Your task to perform on an android device: When is my next meeting? Image 0: 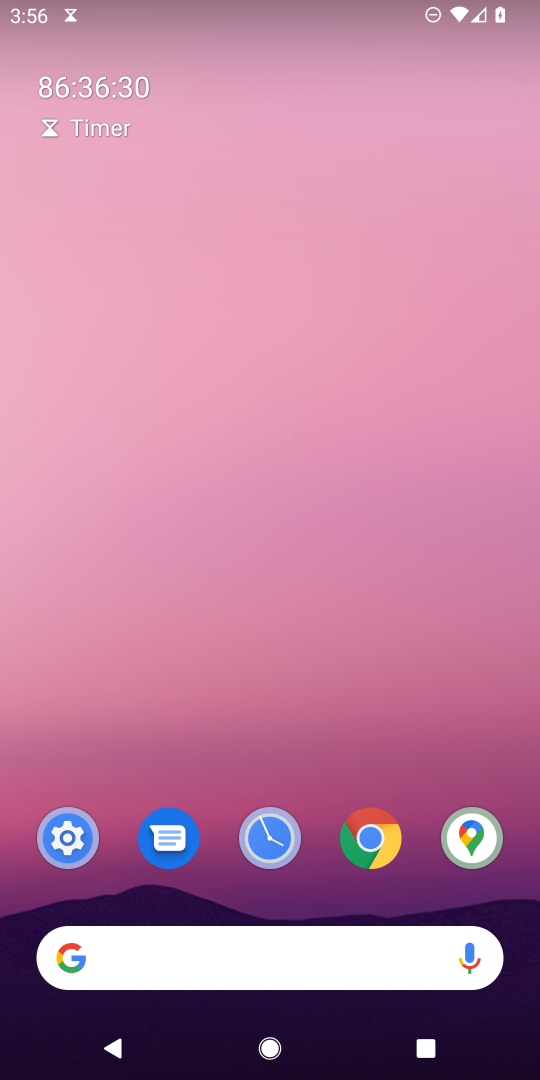
Step 0: drag from (227, 906) to (83, 238)
Your task to perform on an android device: When is my next meeting? Image 1: 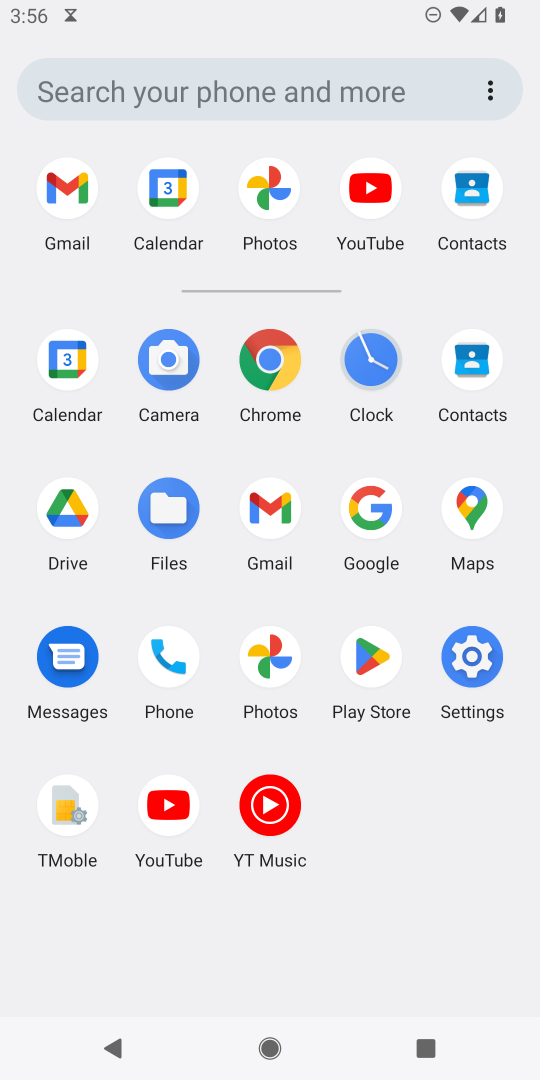
Step 1: click (63, 352)
Your task to perform on an android device: When is my next meeting? Image 2: 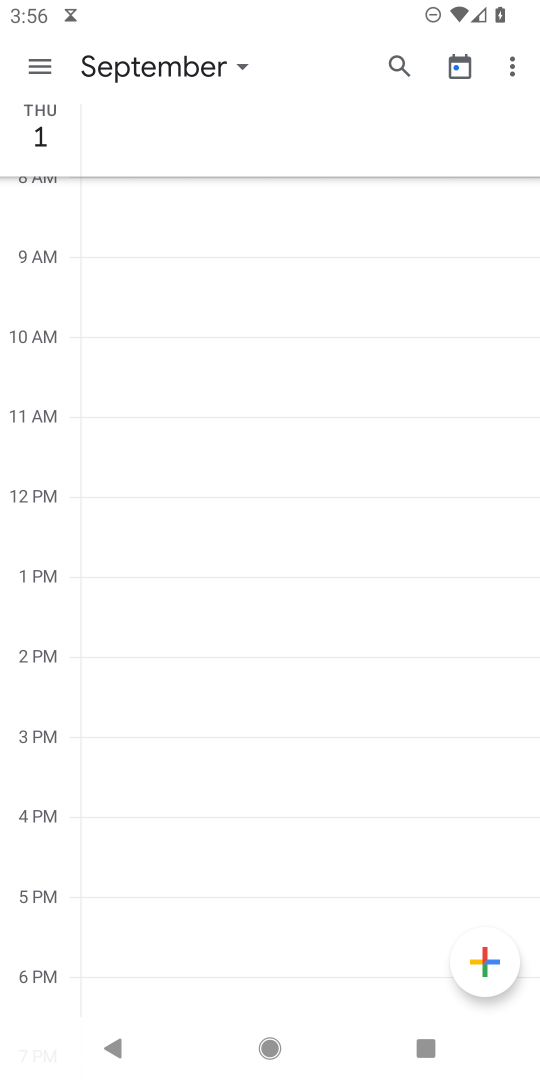
Step 2: click (29, 66)
Your task to perform on an android device: When is my next meeting? Image 3: 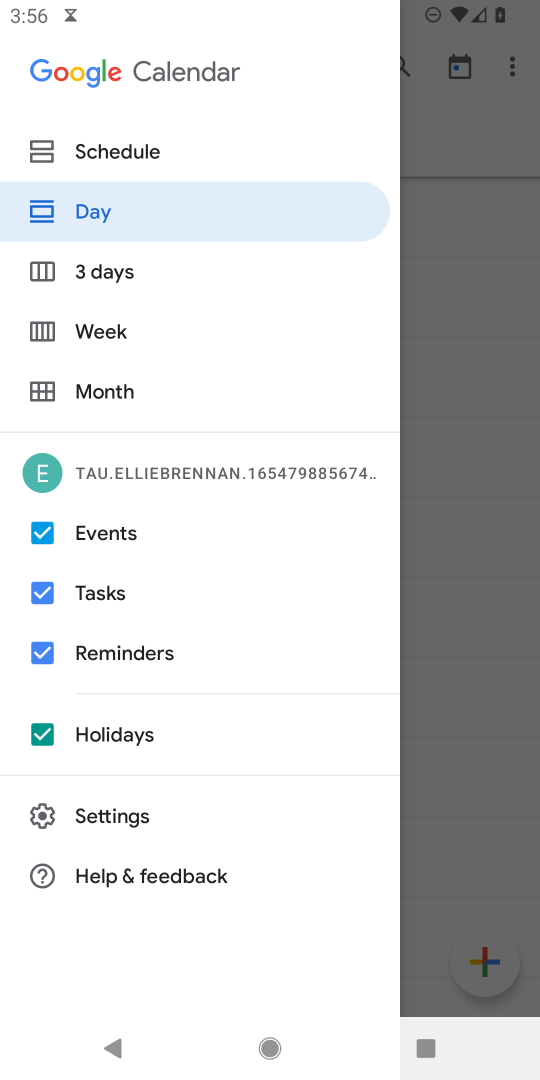
Step 3: click (112, 150)
Your task to perform on an android device: When is my next meeting? Image 4: 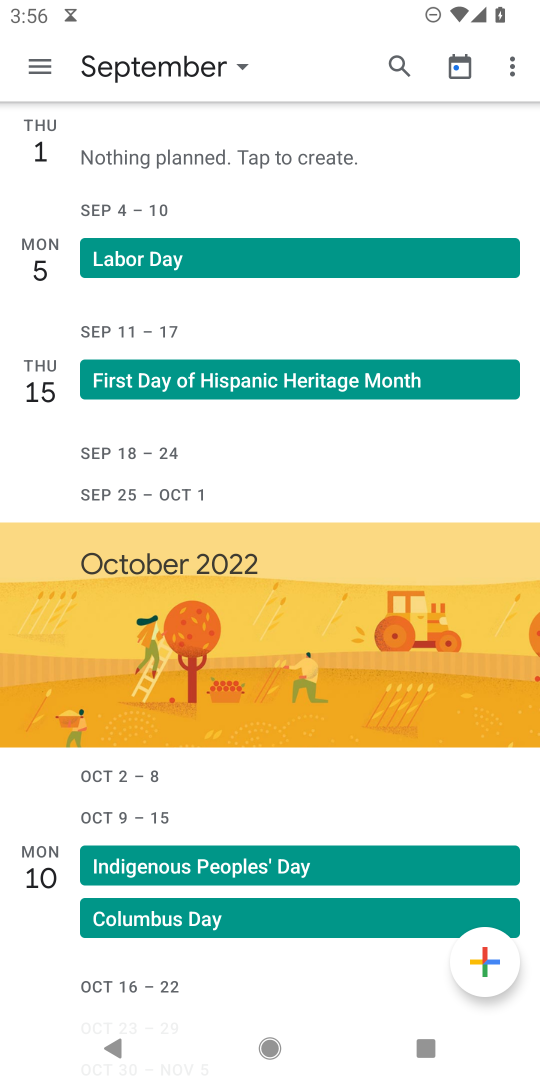
Step 4: click (198, 57)
Your task to perform on an android device: When is my next meeting? Image 5: 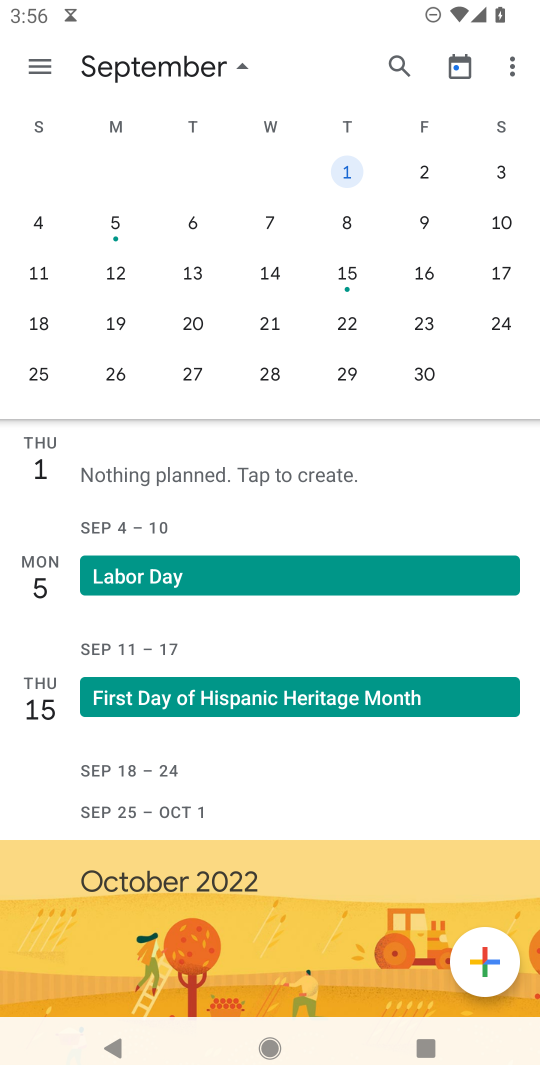
Step 5: drag from (88, 337) to (511, 256)
Your task to perform on an android device: When is my next meeting? Image 6: 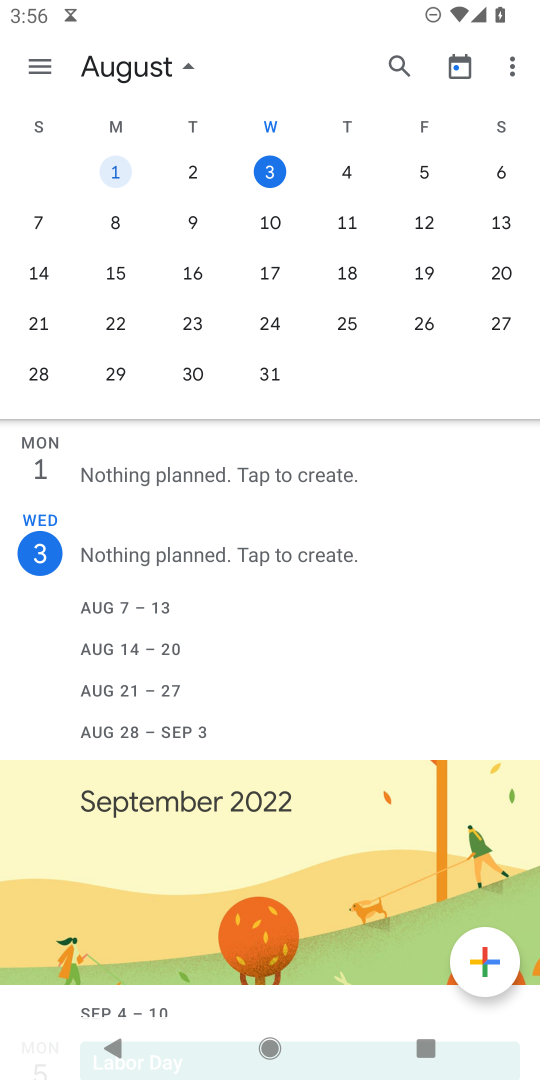
Step 6: click (273, 175)
Your task to perform on an android device: When is my next meeting? Image 7: 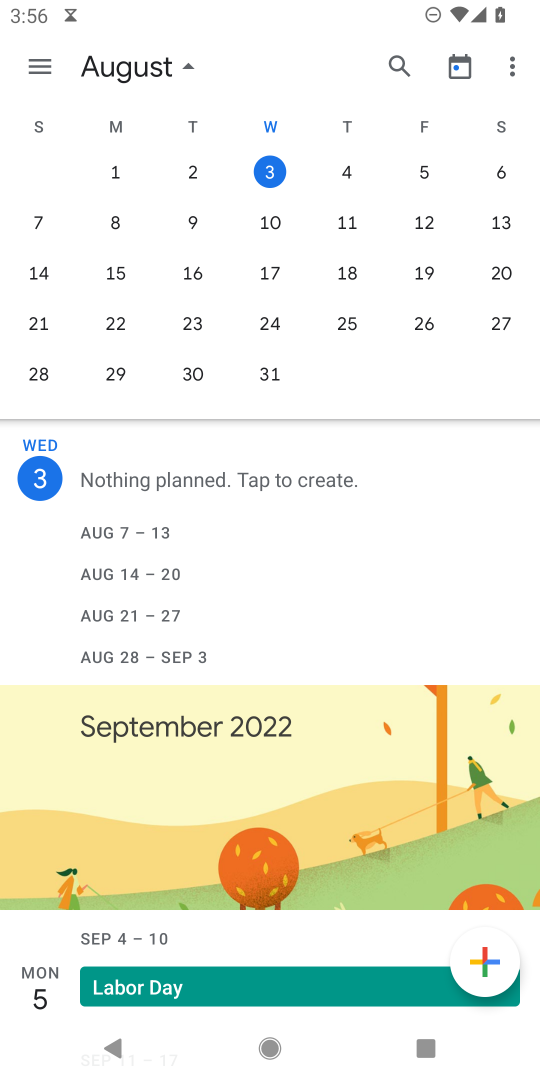
Step 7: task complete